Your task to perform on an android device: Search for Italian restaurants on Maps Image 0: 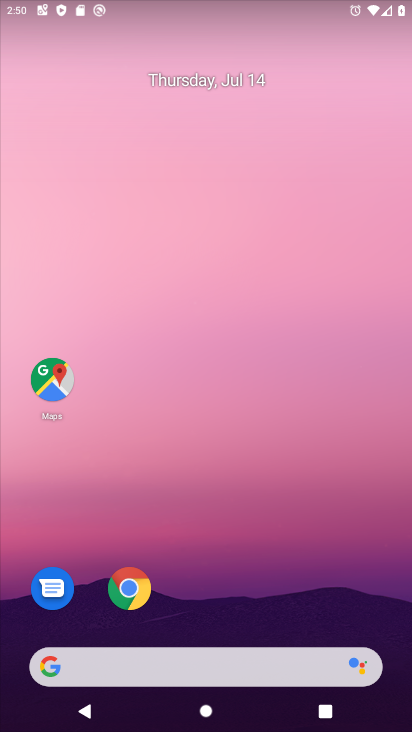
Step 0: click (55, 366)
Your task to perform on an android device: Search for Italian restaurants on Maps Image 1: 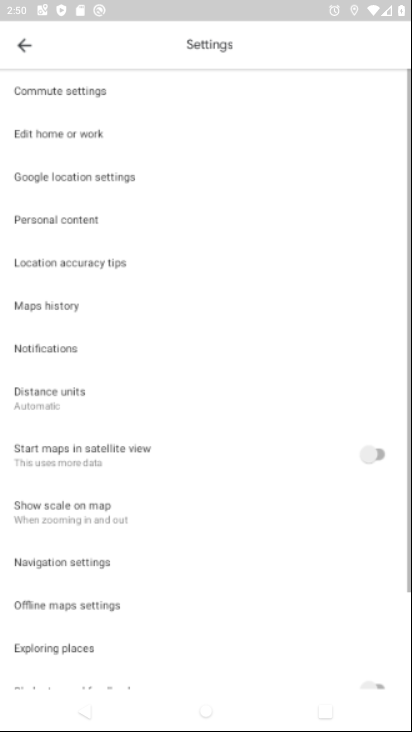
Step 1: click (24, 47)
Your task to perform on an android device: Search for Italian restaurants on Maps Image 2: 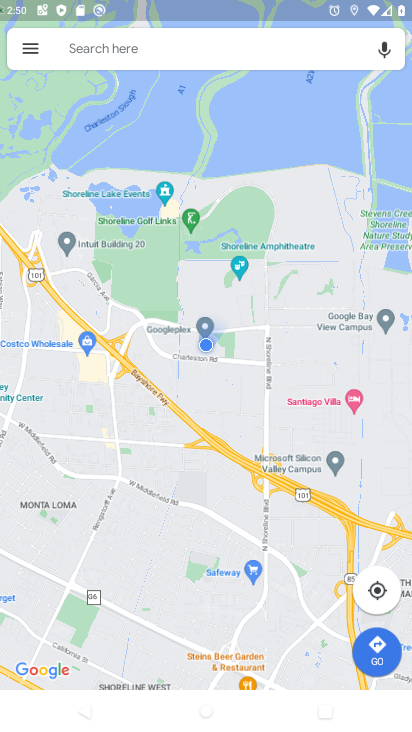
Step 2: click (183, 46)
Your task to perform on an android device: Search for Italian restaurants on Maps Image 3: 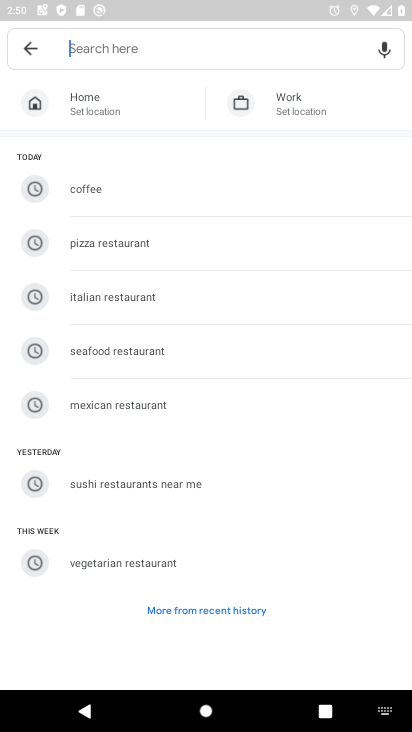
Step 3: type "Italian restaurants "
Your task to perform on an android device: Search for Italian restaurants on Maps Image 4: 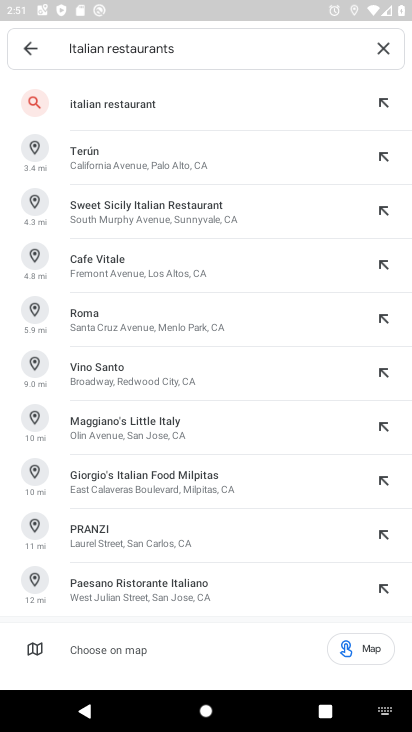
Step 4: click (116, 99)
Your task to perform on an android device: Search for Italian restaurants on Maps Image 5: 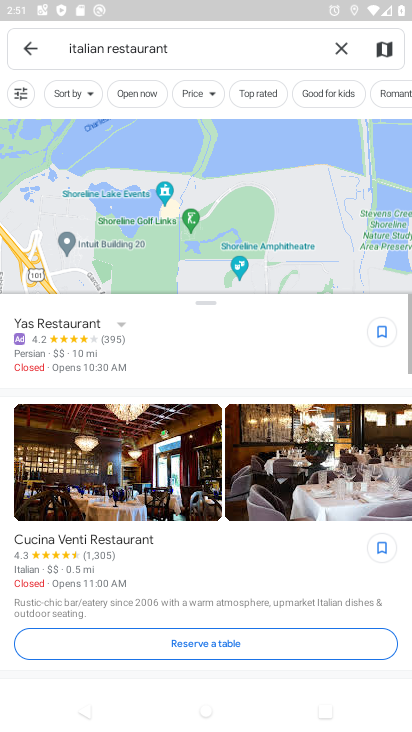
Step 5: task complete